Your task to perform on an android device: turn notification dots on Image 0: 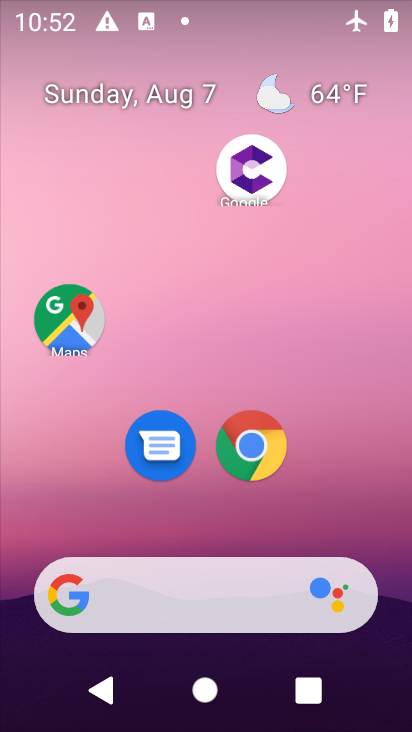
Step 0: press home button
Your task to perform on an android device: turn notification dots on Image 1: 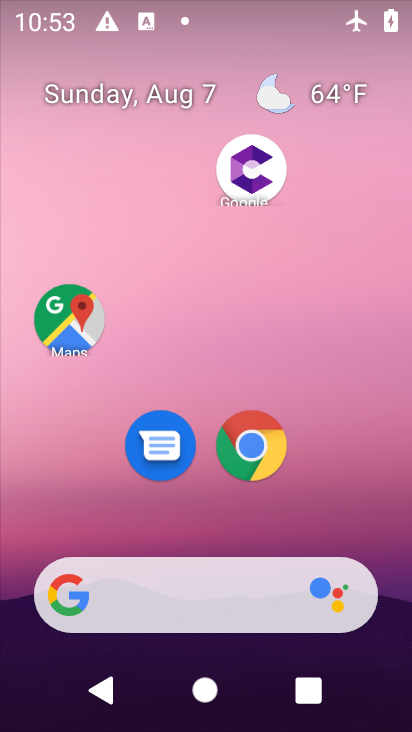
Step 1: drag from (204, 532) to (225, 73)
Your task to perform on an android device: turn notification dots on Image 2: 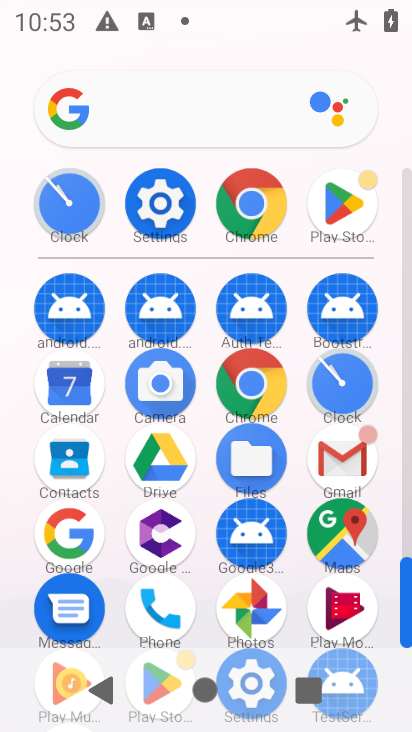
Step 2: click (161, 197)
Your task to perform on an android device: turn notification dots on Image 3: 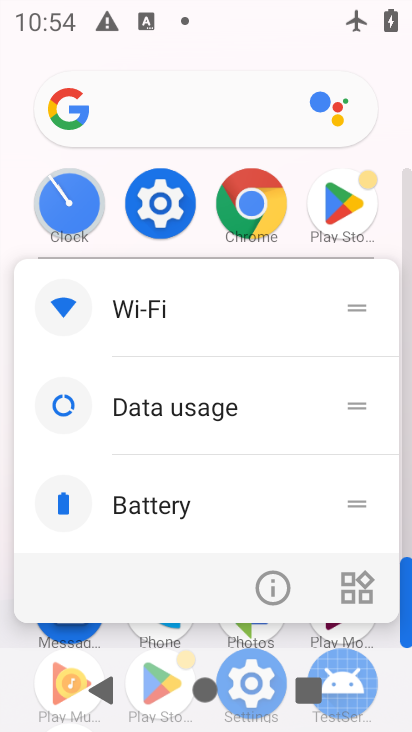
Step 3: click (161, 199)
Your task to perform on an android device: turn notification dots on Image 4: 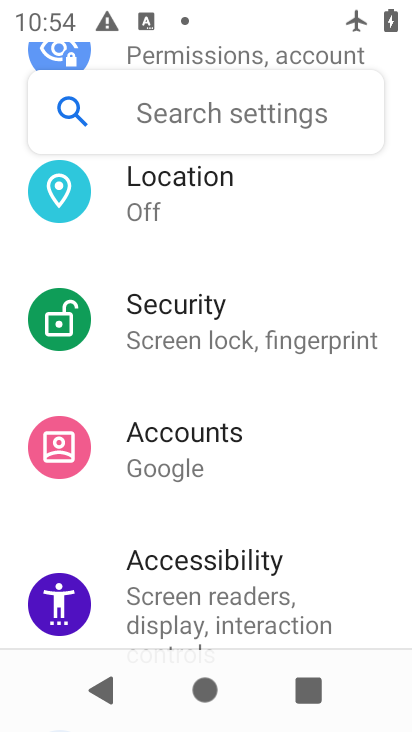
Step 4: drag from (217, 193) to (234, 658)
Your task to perform on an android device: turn notification dots on Image 5: 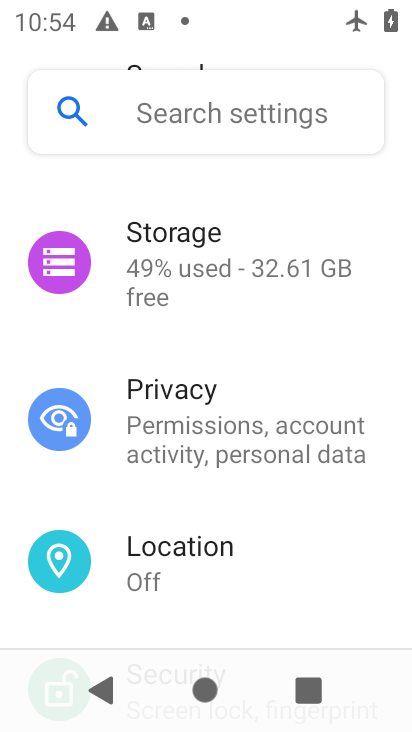
Step 5: drag from (262, 287) to (284, 717)
Your task to perform on an android device: turn notification dots on Image 6: 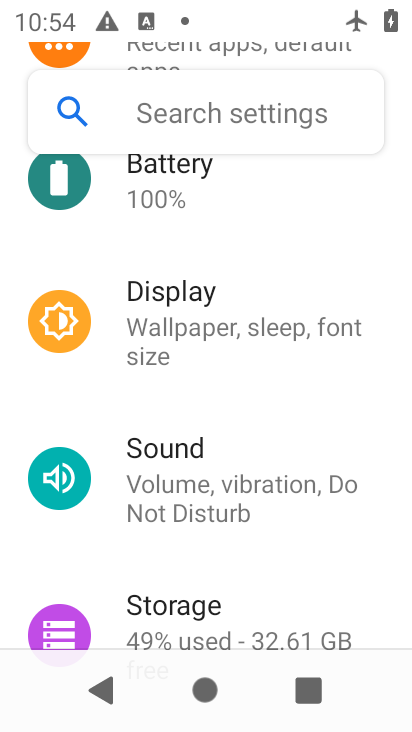
Step 6: drag from (230, 193) to (270, 660)
Your task to perform on an android device: turn notification dots on Image 7: 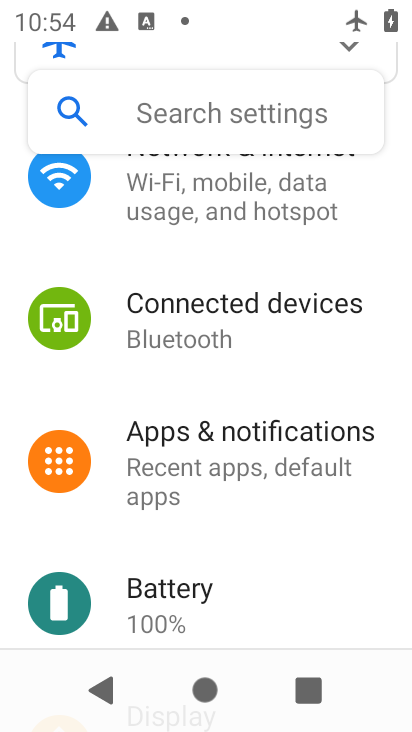
Step 7: click (252, 449)
Your task to perform on an android device: turn notification dots on Image 8: 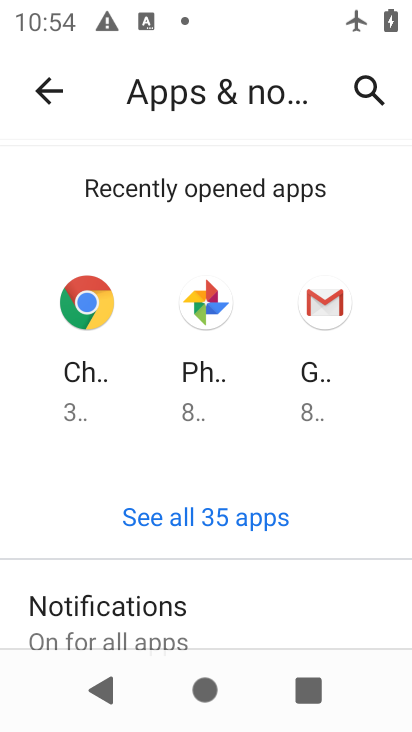
Step 8: click (218, 622)
Your task to perform on an android device: turn notification dots on Image 9: 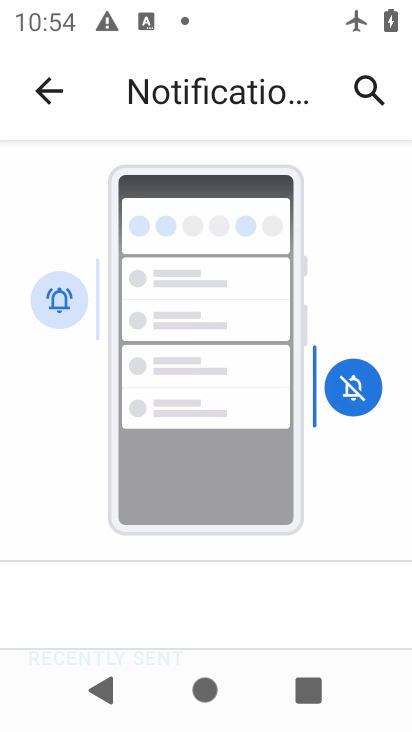
Step 9: drag from (195, 597) to (246, 120)
Your task to perform on an android device: turn notification dots on Image 10: 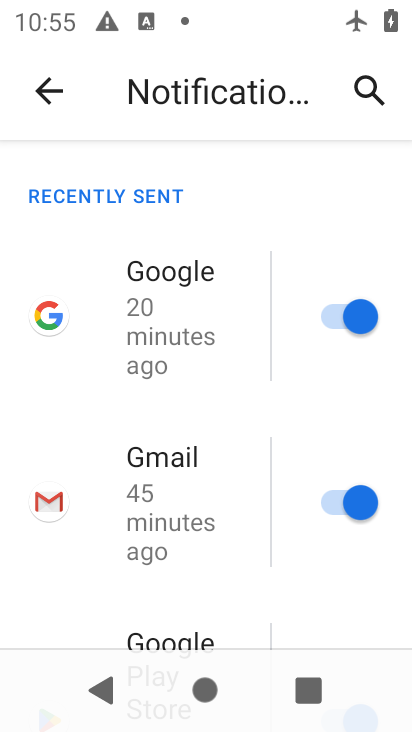
Step 10: drag from (185, 599) to (224, 0)
Your task to perform on an android device: turn notification dots on Image 11: 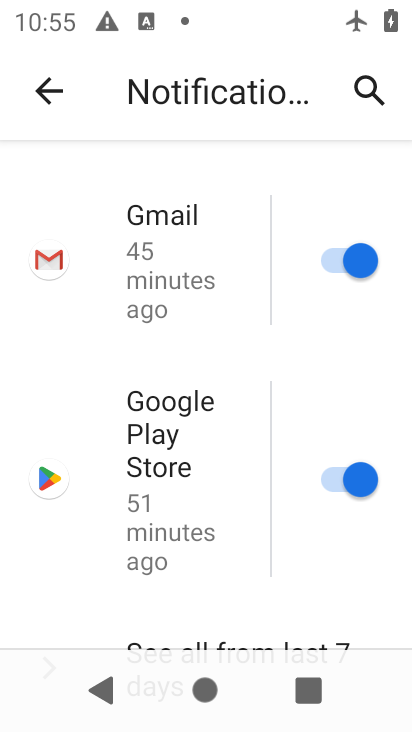
Step 11: drag from (209, 590) to (261, 5)
Your task to perform on an android device: turn notification dots on Image 12: 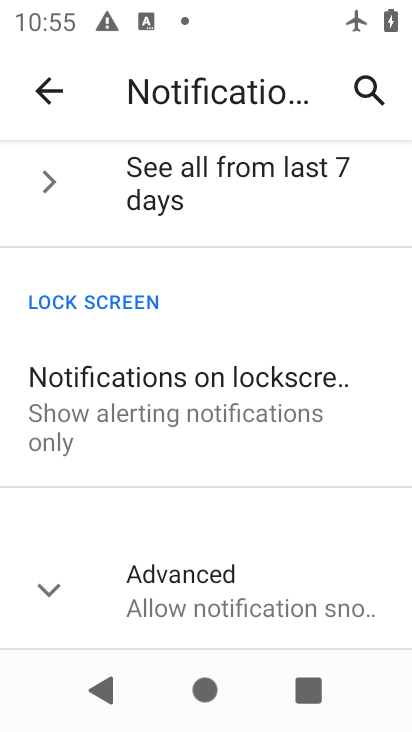
Step 12: click (57, 588)
Your task to perform on an android device: turn notification dots on Image 13: 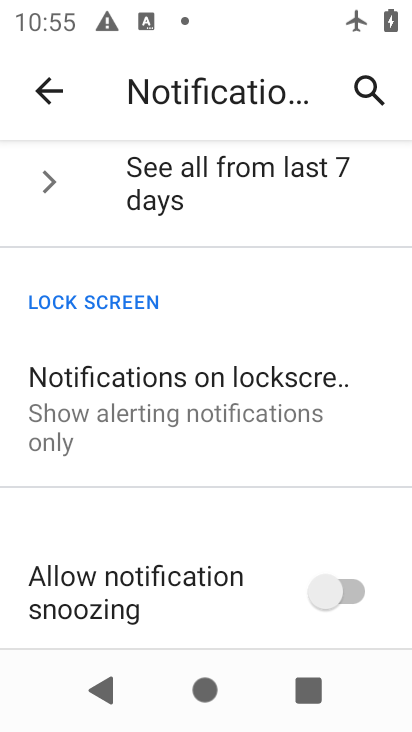
Step 13: task complete